Your task to perform on an android device: toggle priority inbox in the gmail app Image 0: 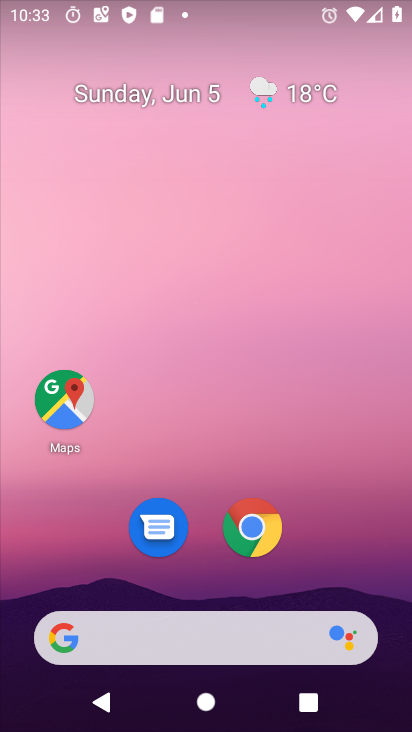
Step 0: drag from (350, 509) to (259, 4)
Your task to perform on an android device: toggle priority inbox in the gmail app Image 1: 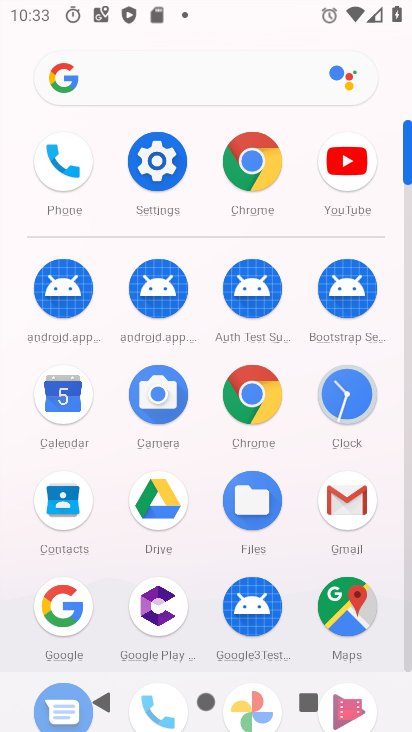
Step 1: click (325, 496)
Your task to perform on an android device: toggle priority inbox in the gmail app Image 2: 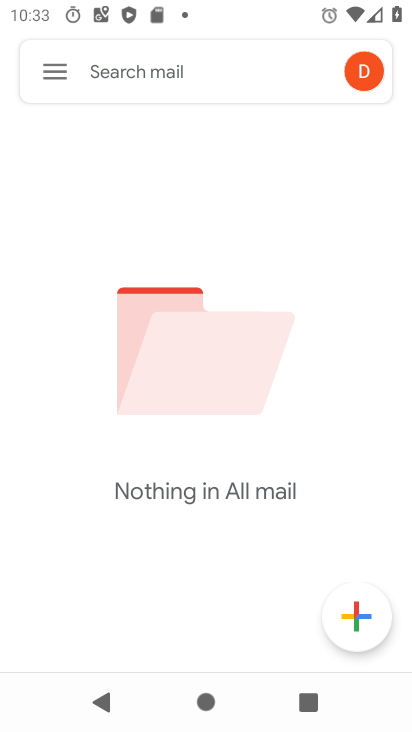
Step 2: click (54, 78)
Your task to perform on an android device: toggle priority inbox in the gmail app Image 3: 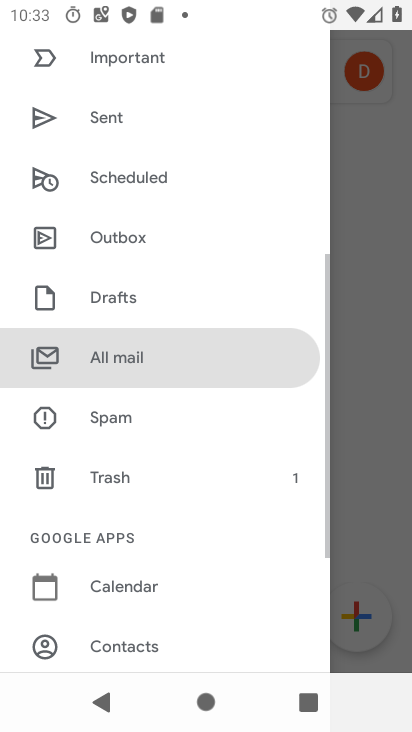
Step 3: drag from (145, 611) to (133, 96)
Your task to perform on an android device: toggle priority inbox in the gmail app Image 4: 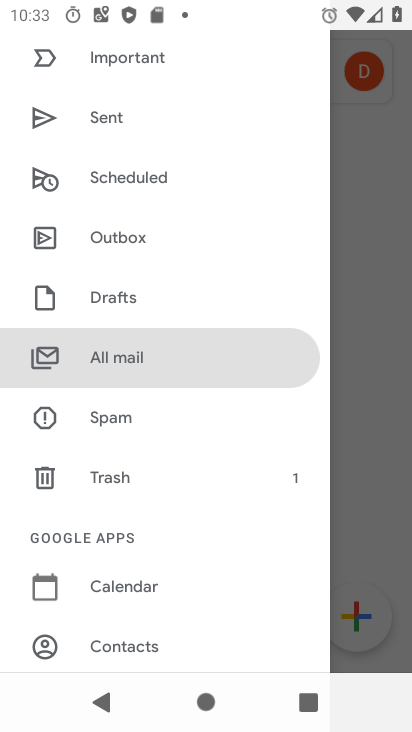
Step 4: drag from (119, 546) to (139, 172)
Your task to perform on an android device: toggle priority inbox in the gmail app Image 5: 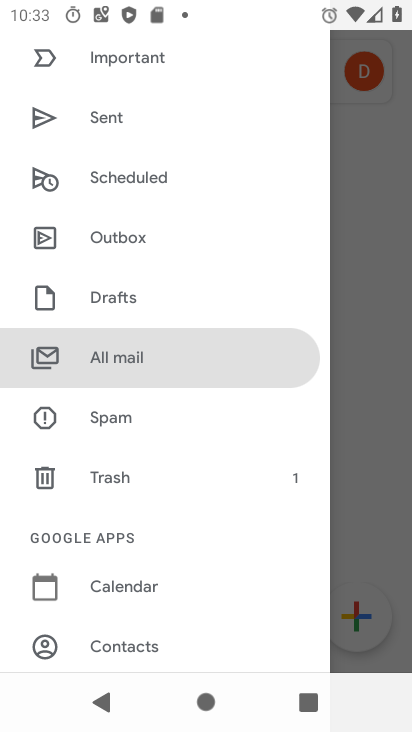
Step 5: drag from (141, 612) to (124, 137)
Your task to perform on an android device: toggle priority inbox in the gmail app Image 6: 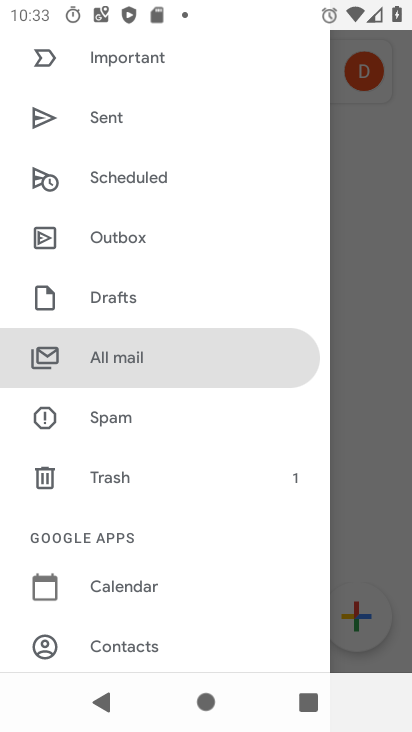
Step 6: drag from (146, 263) to (145, 636)
Your task to perform on an android device: toggle priority inbox in the gmail app Image 7: 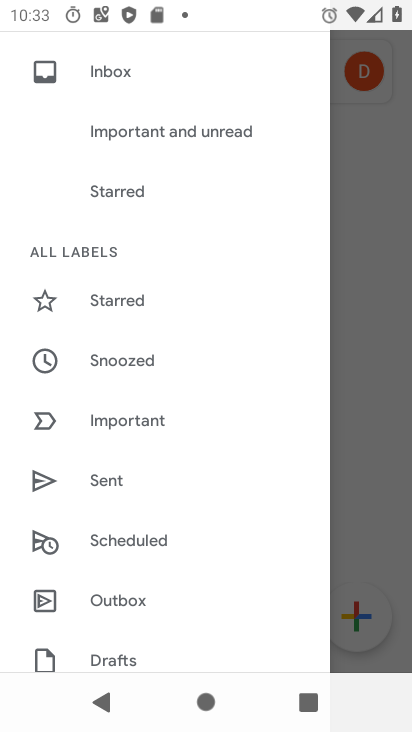
Step 7: drag from (175, 611) to (157, 82)
Your task to perform on an android device: toggle priority inbox in the gmail app Image 8: 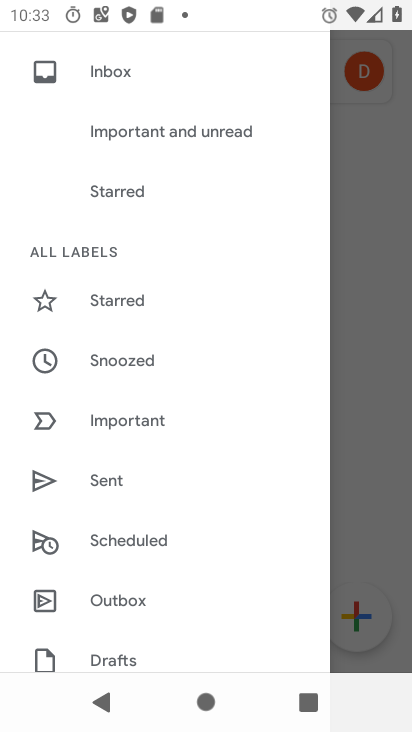
Step 8: drag from (155, 607) to (189, 93)
Your task to perform on an android device: toggle priority inbox in the gmail app Image 9: 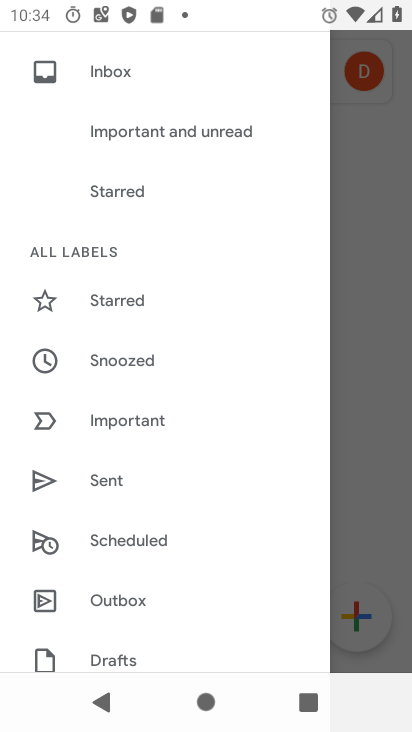
Step 9: drag from (148, 627) to (200, 102)
Your task to perform on an android device: toggle priority inbox in the gmail app Image 10: 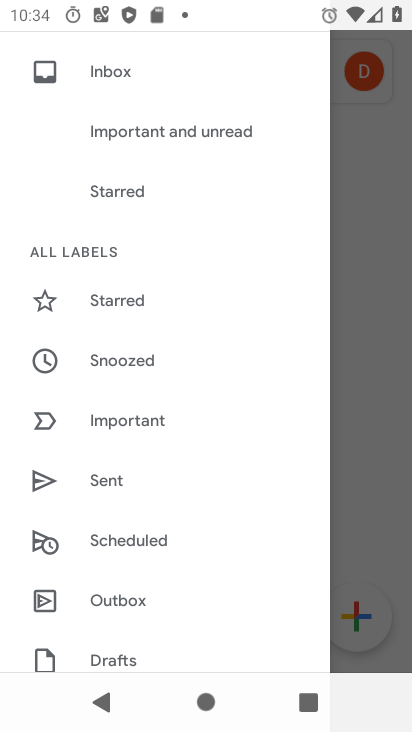
Step 10: drag from (283, 675) to (287, 164)
Your task to perform on an android device: toggle priority inbox in the gmail app Image 11: 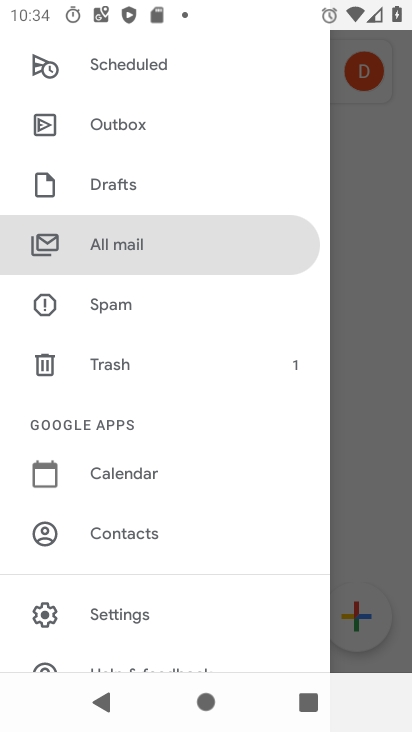
Step 11: click (124, 617)
Your task to perform on an android device: toggle priority inbox in the gmail app Image 12: 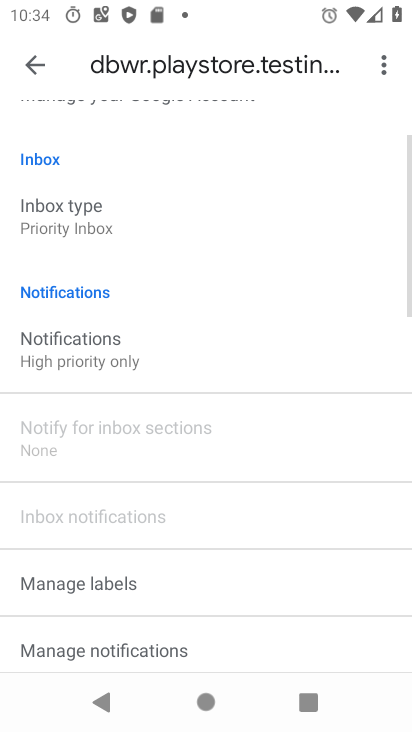
Step 12: click (61, 375)
Your task to perform on an android device: toggle priority inbox in the gmail app Image 13: 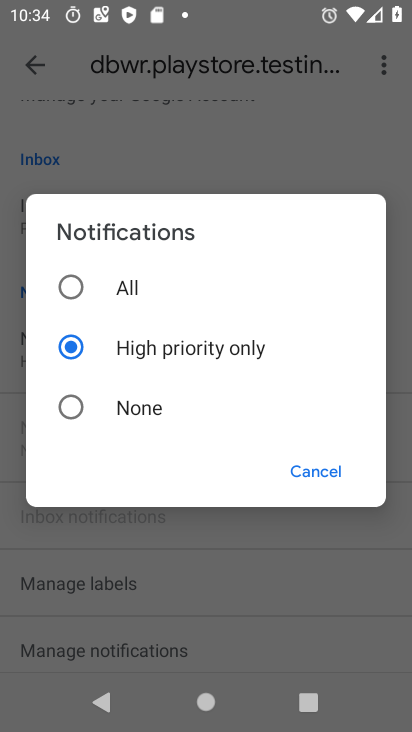
Step 13: click (326, 479)
Your task to perform on an android device: toggle priority inbox in the gmail app Image 14: 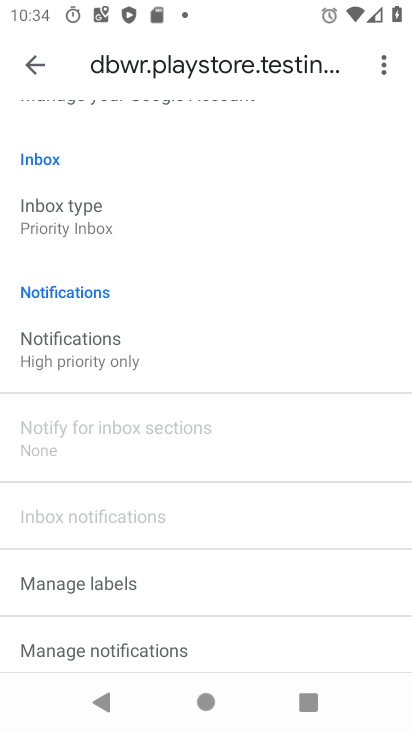
Step 14: click (71, 221)
Your task to perform on an android device: toggle priority inbox in the gmail app Image 15: 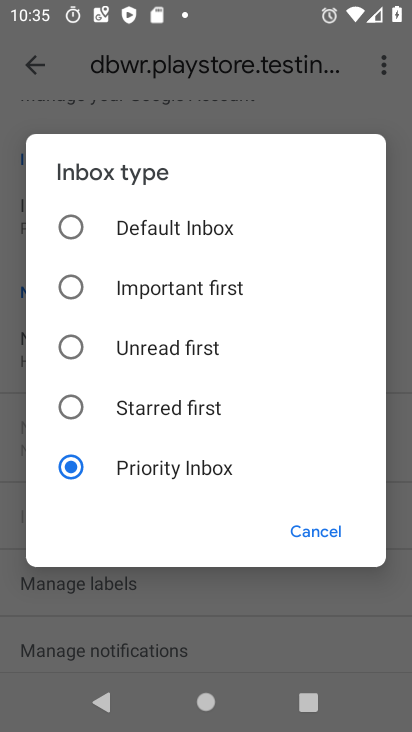
Step 15: click (111, 231)
Your task to perform on an android device: toggle priority inbox in the gmail app Image 16: 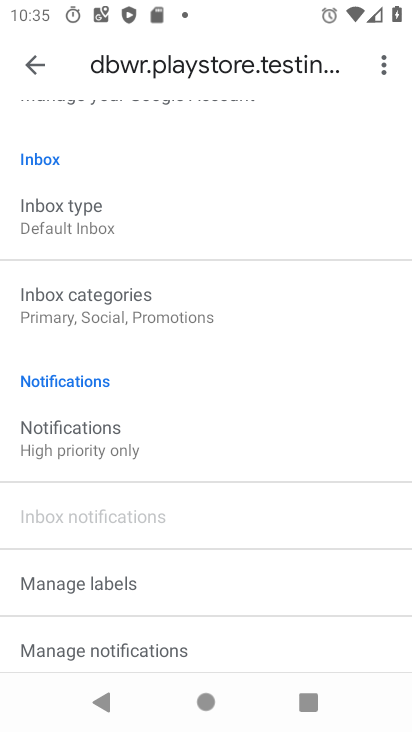
Step 16: task complete